Your task to perform on an android device: toggle wifi Image 0: 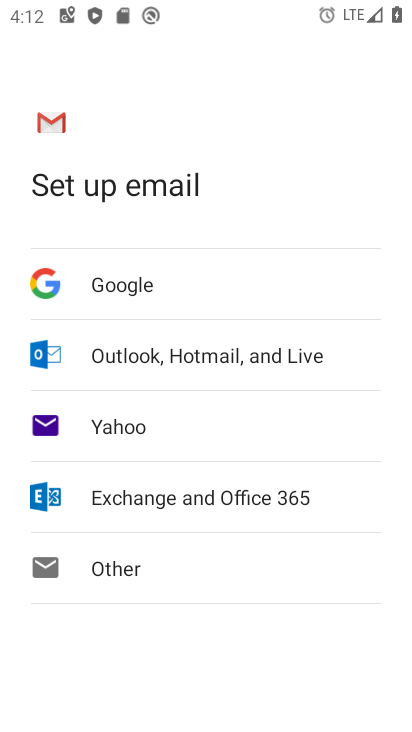
Step 0: press home button
Your task to perform on an android device: toggle wifi Image 1: 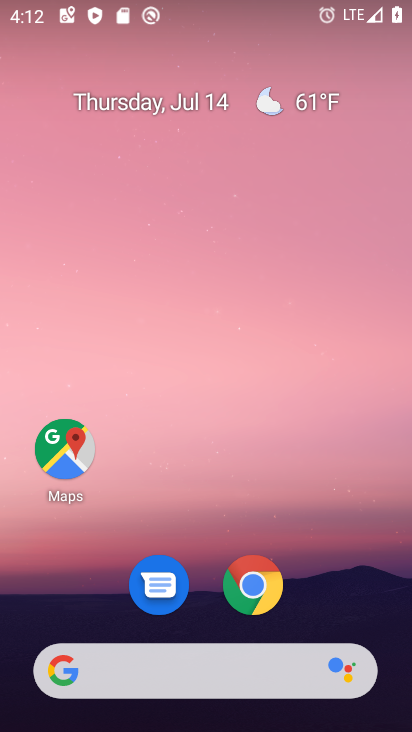
Step 1: drag from (219, 475) to (284, 8)
Your task to perform on an android device: toggle wifi Image 2: 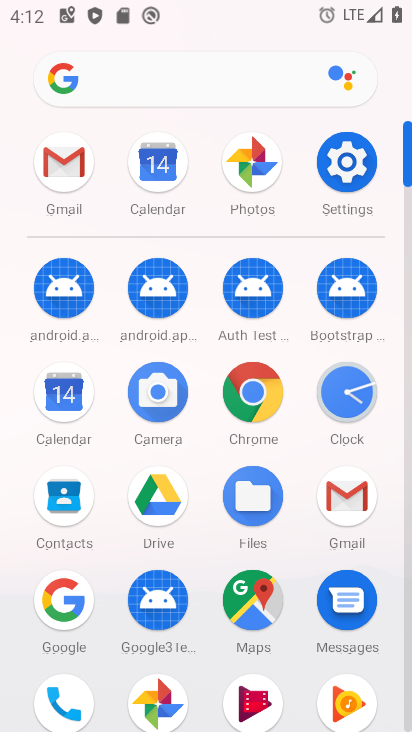
Step 2: click (359, 157)
Your task to perform on an android device: toggle wifi Image 3: 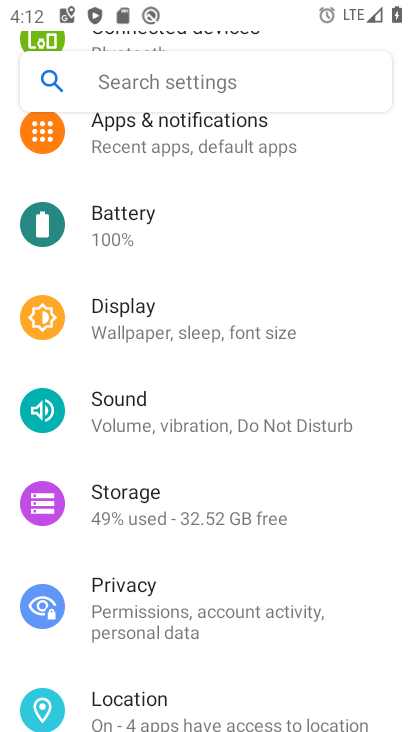
Step 3: drag from (226, 224) to (227, 716)
Your task to perform on an android device: toggle wifi Image 4: 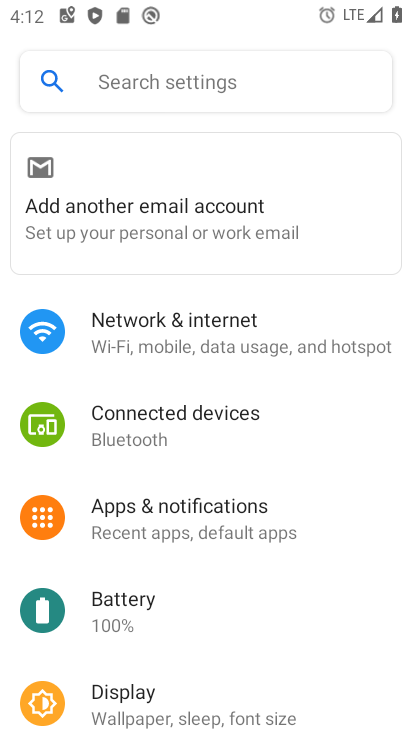
Step 4: click (232, 338)
Your task to perform on an android device: toggle wifi Image 5: 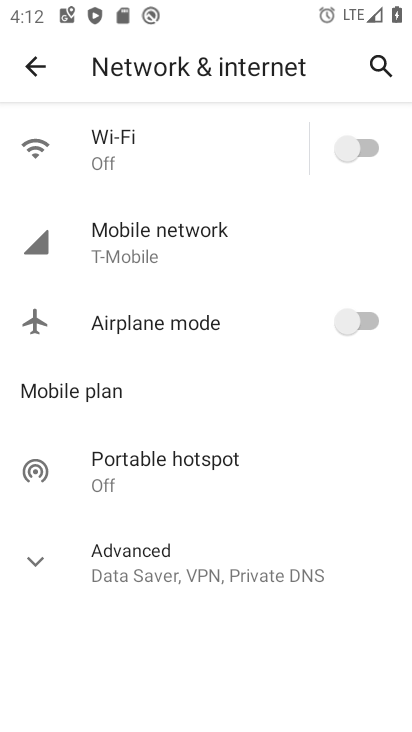
Step 5: click (356, 137)
Your task to perform on an android device: toggle wifi Image 6: 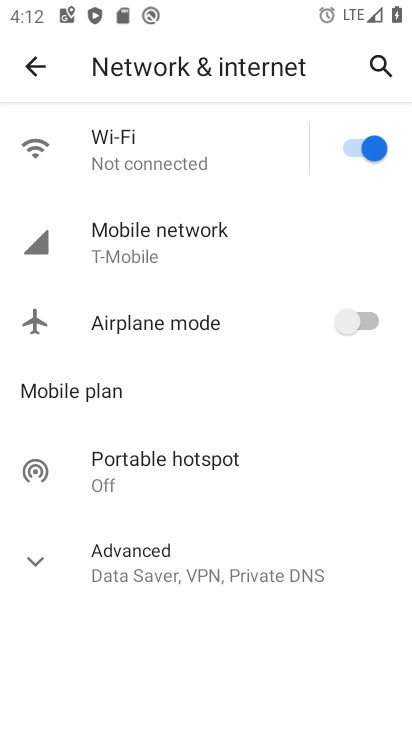
Step 6: task complete